Your task to perform on an android device: clear history in the chrome app Image 0: 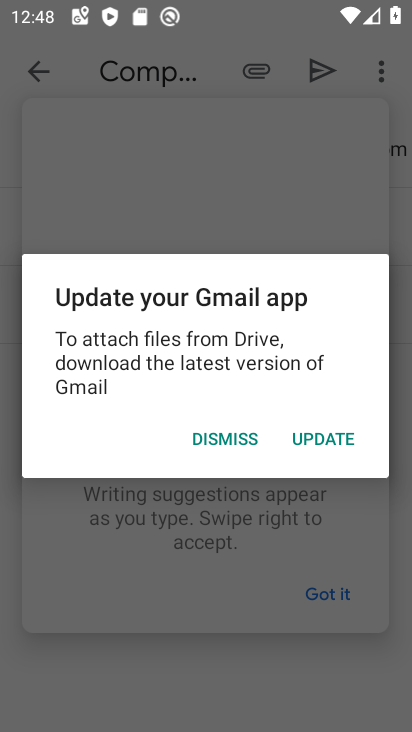
Step 0: press home button
Your task to perform on an android device: clear history in the chrome app Image 1: 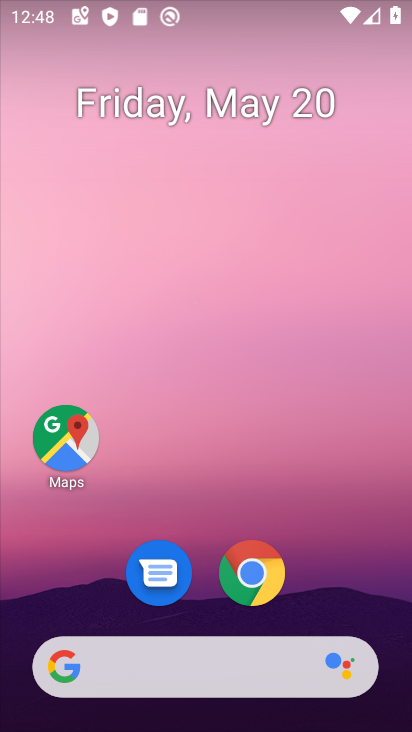
Step 1: click (258, 579)
Your task to perform on an android device: clear history in the chrome app Image 2: 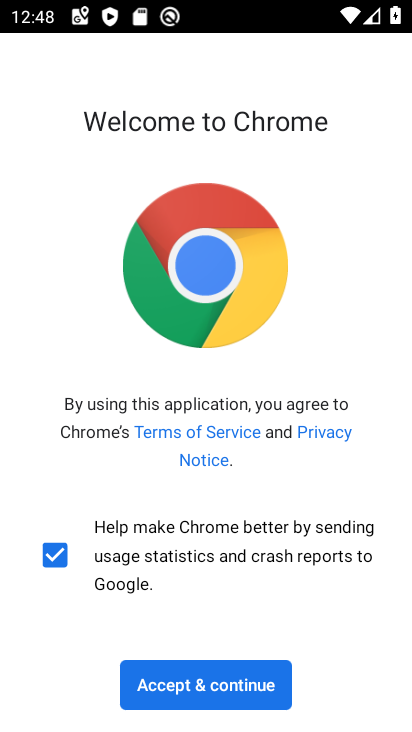
Step 2: click (186, 688)
Your task to perform on an android device: clear history in the chrome app Image 3: 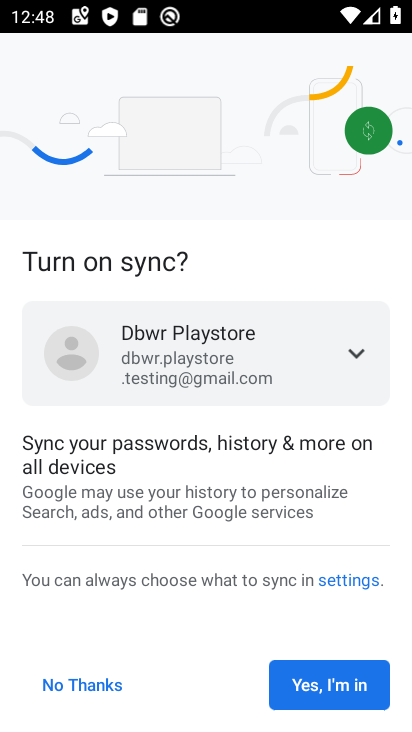
Step 3: click (324, 680)
Your task to perform on an android device: clear history in the chrome app Image 4: 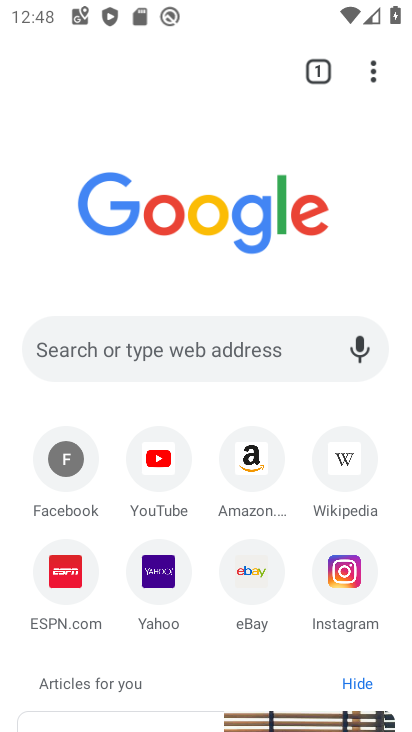
Step 4: click (348, 147)
Your task to perform on an android device: clear history in the chrome app Image 5: 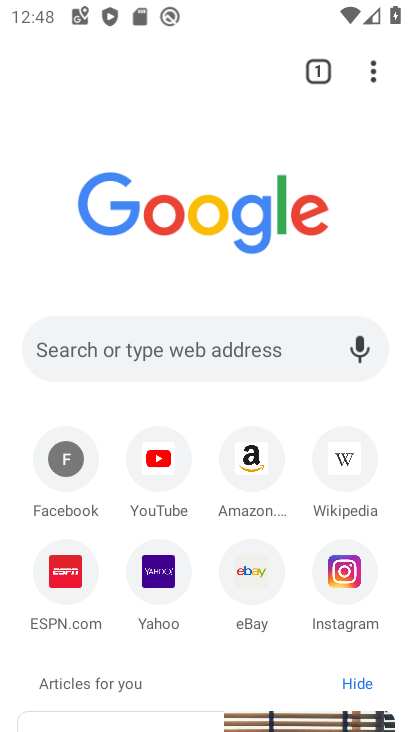
Step 5: click (373, 73)
Your task to perform on an android device: clear history in the chrome app Image 6: 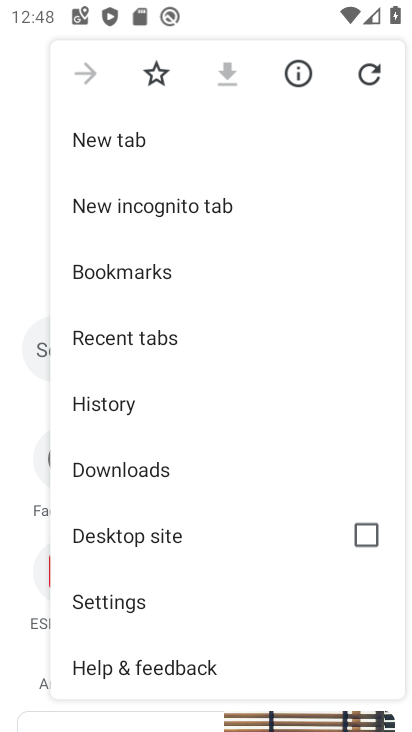
Step 6: click (106, 401)
Your task to perform on an android device: clear history in the chrome app Image 7: 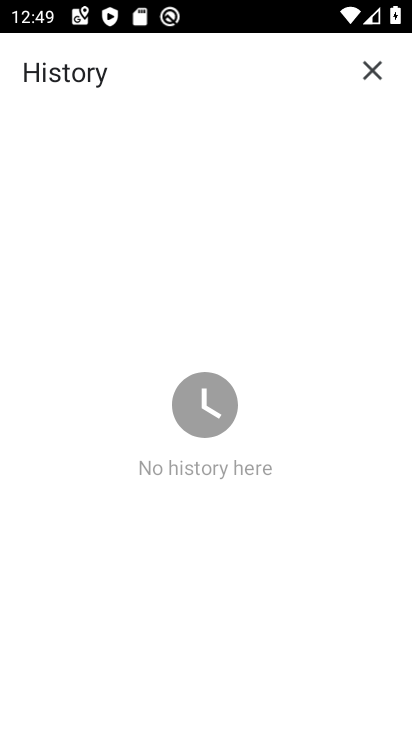
Step 7: task complete